Your task to perform on an android device: Open Google Chrome and open the bookmarks view Image 0: 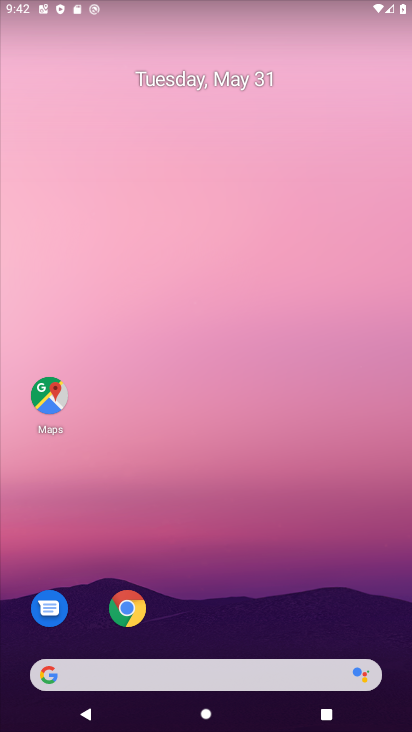
Step 0: click (130, 604)
Your task to perform on an android device: Open Google Chrome and open the bookmarks view Image 1: 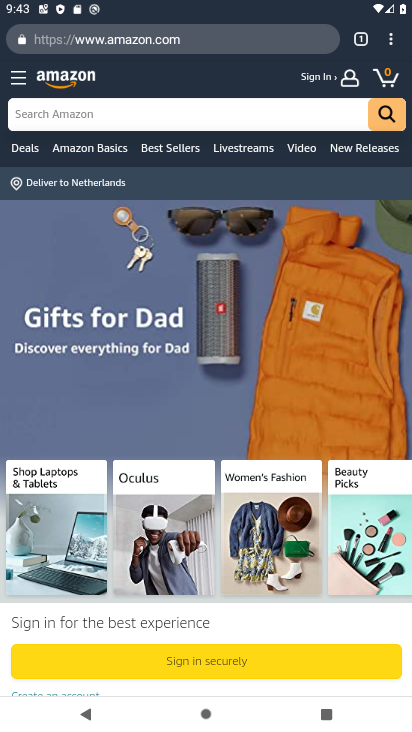
Step 1: click (388, 32)
Your task to perform on an android device: Open Google Chrome and open the bookmarks view Image 2: 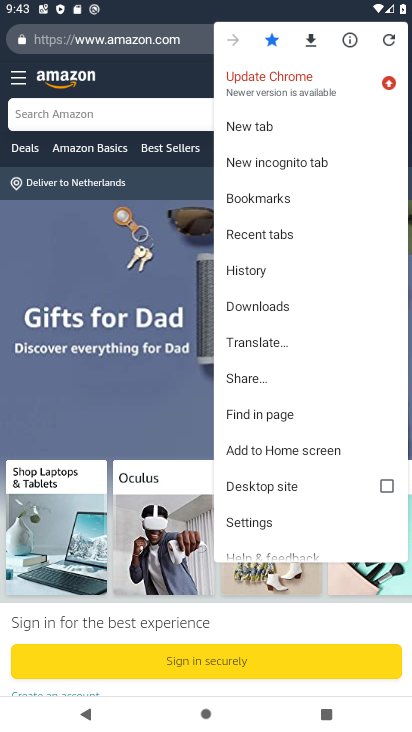
Step 2: click (263, 196)
Your task to perform on an android device: Open Google Chrome and open the bookmarks view Image 3: 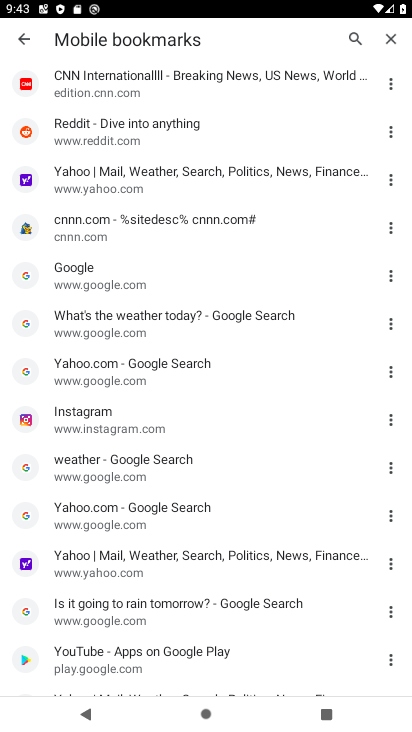
Step 3: task complete